Your task to perform on an android device: Open Chrome and go to the settings page Image 0: 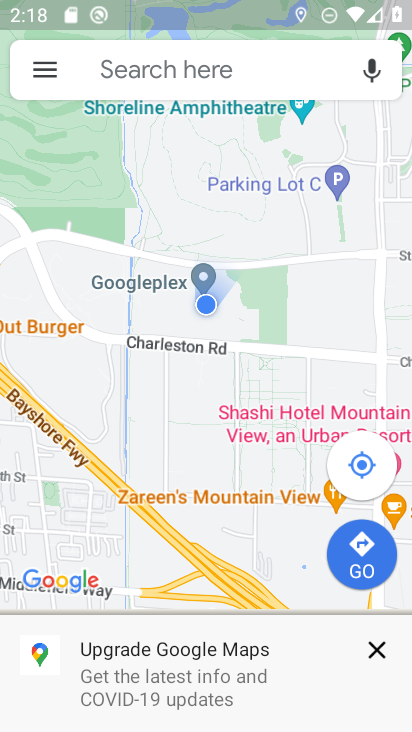
Step 0: press home button
Your task to perform on an android device: Open Chrome and go to the settings page Image 1: 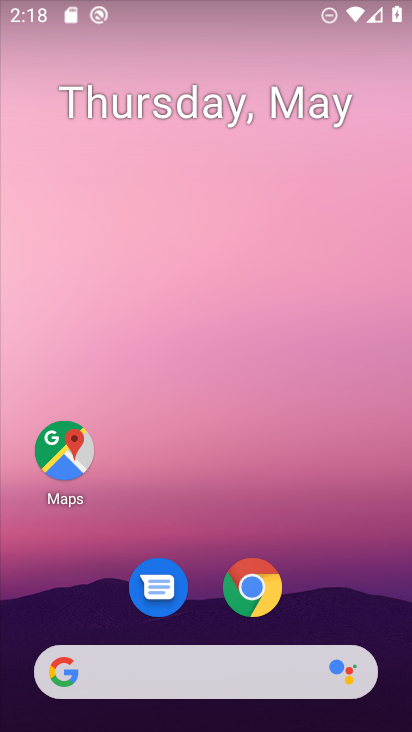
Step 1: drag from (331, 509) to (296, 165)
Your task to perform on an android device: Open Chrome and go to the settings page Image 2: 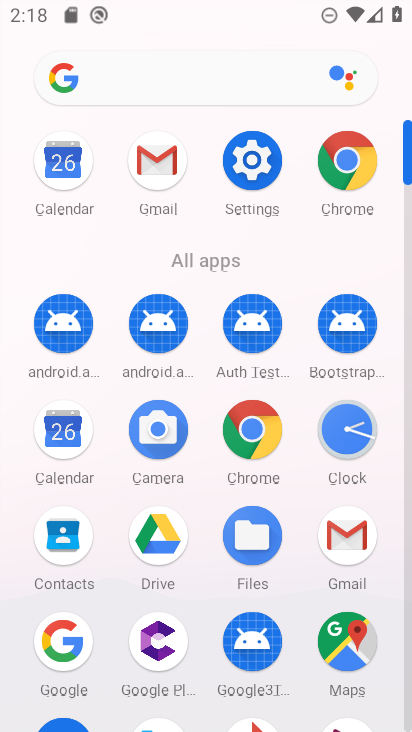
Step 2: click (345, 162)
Your task to perform on an android device: Open Chrome and go to the settings page Image 3: 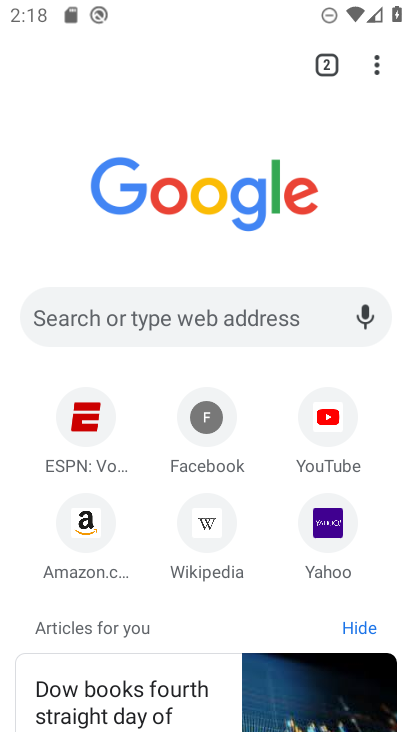
Step 3: task complete